Your task to perform on an android device: turn on the 24-hour format for clock Image 0: 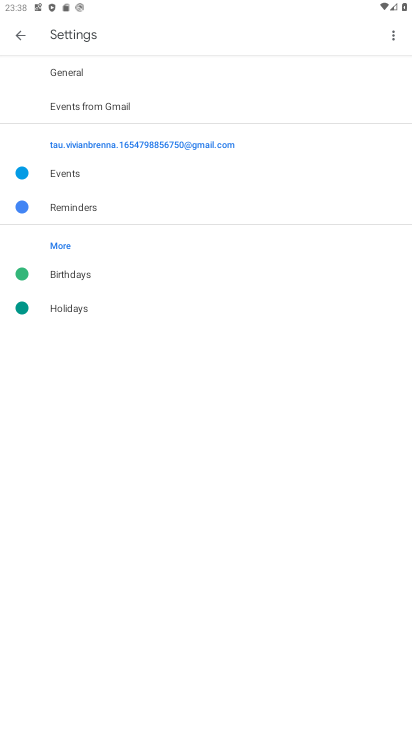
Step 0: press home button
Your task to perform on an android device: turn on the 24-hour format for clock Image 1: 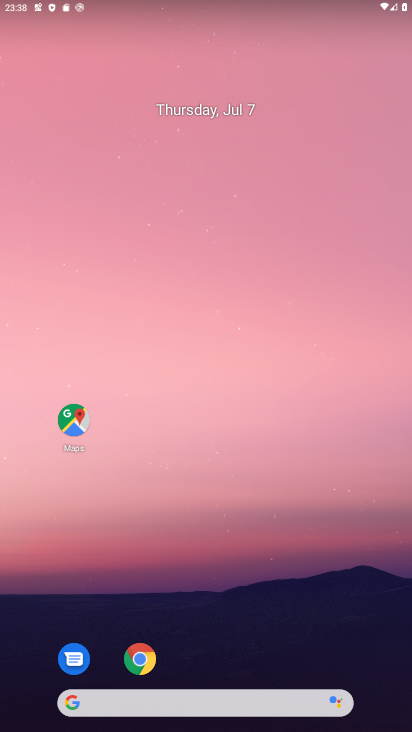
Step 1: drag from (188, 662) to (234, 50)
Your task to perform on an android device: turn on the 24-hour format for clock Image 2: 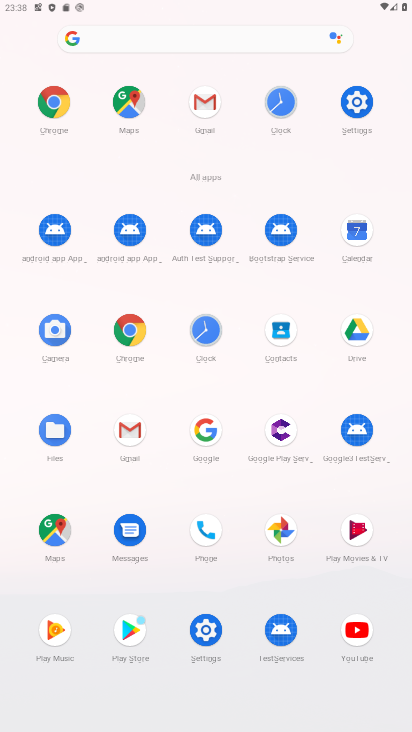
Step 2: click (283, 110)
Your task to perform on an android device: turn on the 24-hour format for clock Image 3: 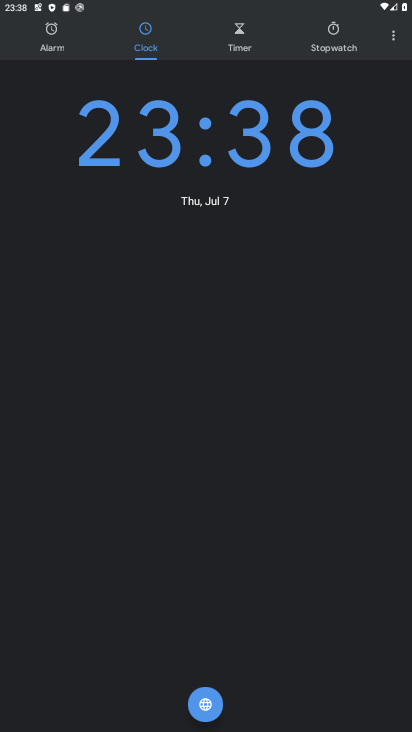
Step 3: click (404, 39)
Your task to perform on an android device: turn on the 24-hour format for clock Image 4: 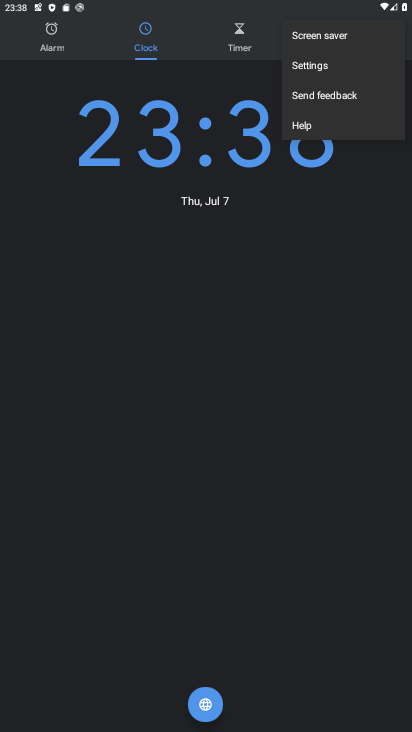
Step 4: click (305, 73)
Your task to perform on an android device: turn on the 24-hour format for clock Image 5: 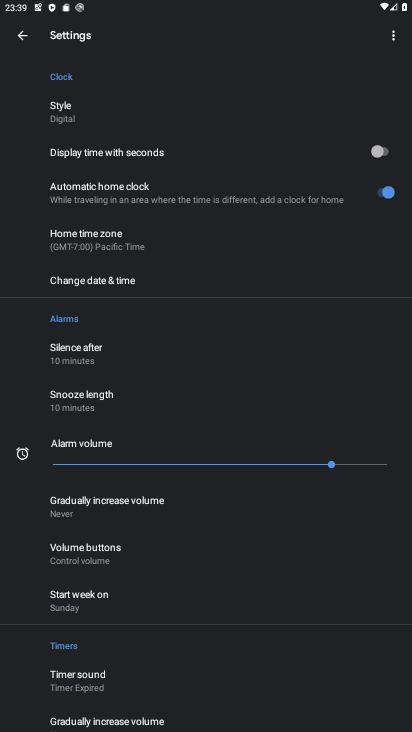
Step 5: click (157, 283)
Your task to perform on an android device: turn on the 24-hour format for clock Image 6: 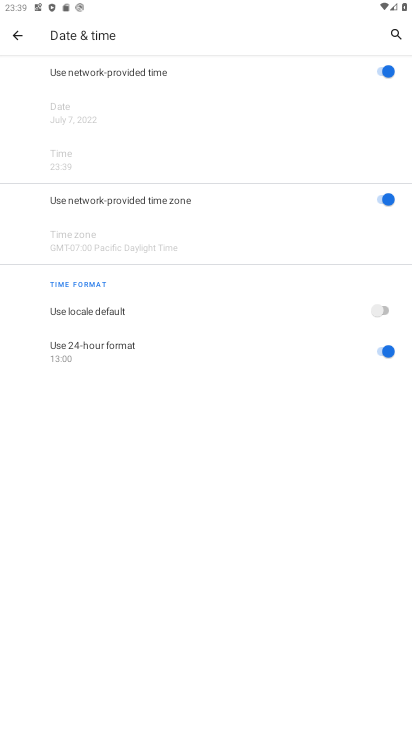
Step 6: task complete